Your task to perform on an android device: show emergency info Image 0: 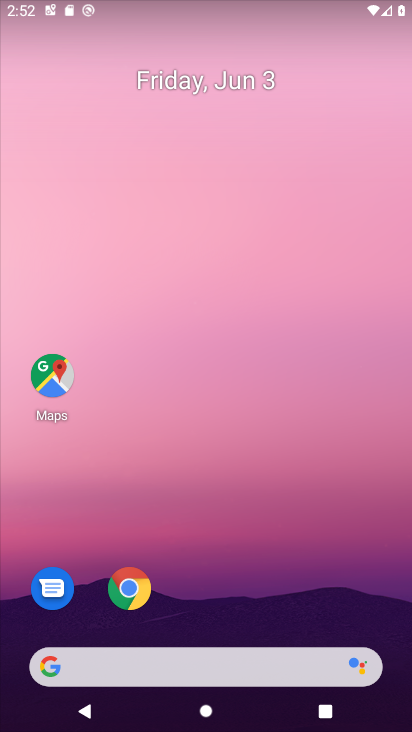
Step 0: drag from (160, 697) to (187, 126)
Your task to perform on an android device: show emergency info Image 1: 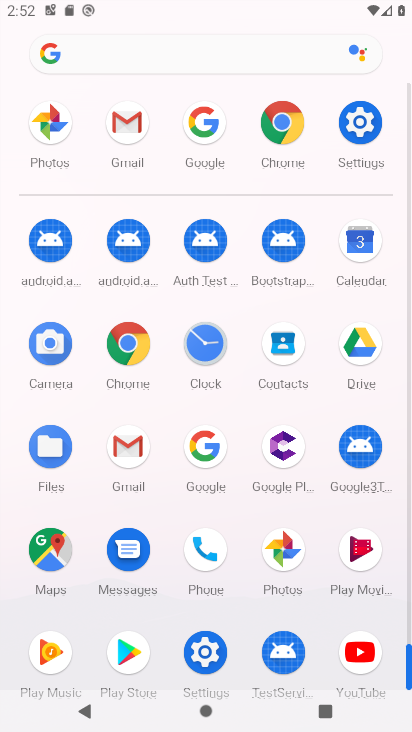
Step 1: click (373, 137)
Your task to perform on an android device: show emergency info Image 2: 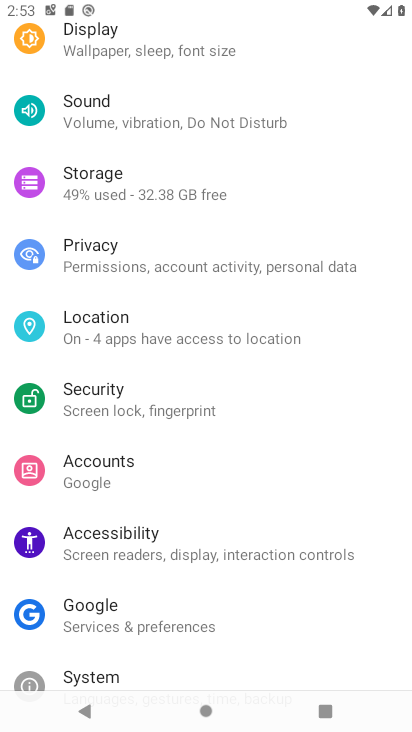
Step 2: drag from (187, 309) to (151, 506)
Your task to perform on an android device: show emergency info Image 3: 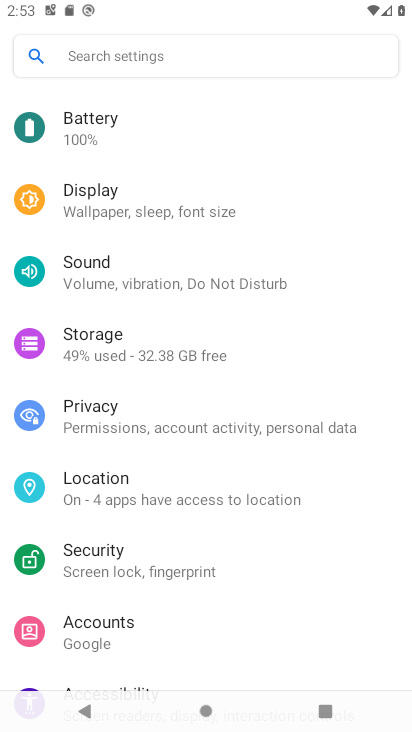
Step 3: drag from (157, 342) to (111, 558)
Your task to perform on an android device: show emergency info Image 4: 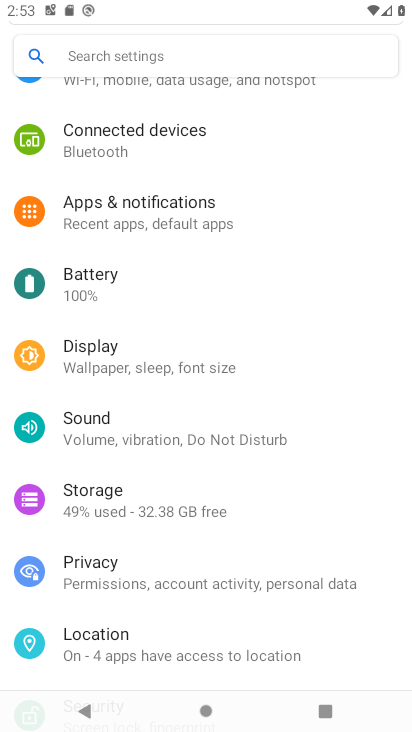
Step 4: drag from (85, 531) to (163, 98)
Your task to perform on an android device: show emergency info Image 5: 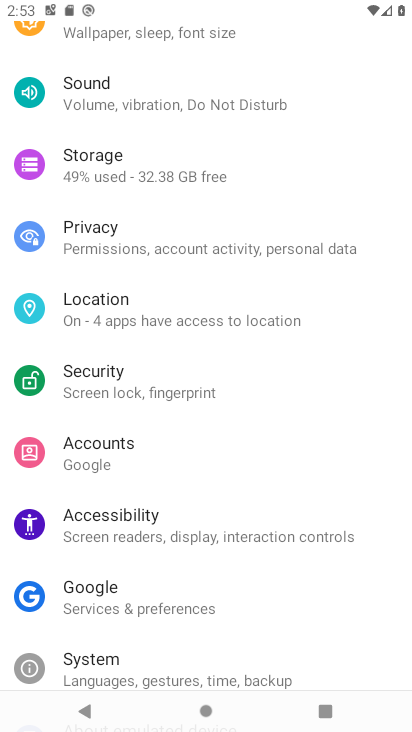
Step 5: drag from (126, 459) to (247, 55)
Your task to perform on an android device: show emergency info Image 6: 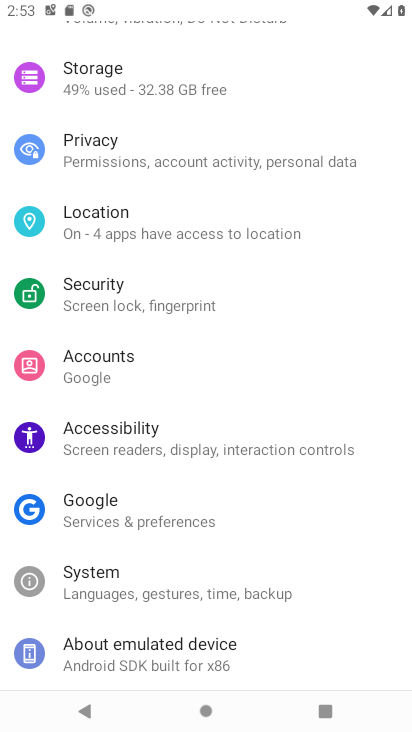
Step 6: click (98, 662)
Your task to perform on an android device: show emergency info Image 7: 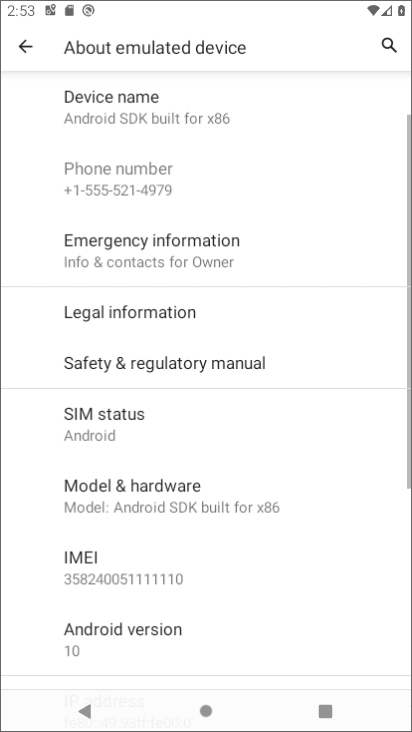
Step 7: drag from (169, 567) to (242, 312)
Your task to perform on an android device: show emergency info Image 8: 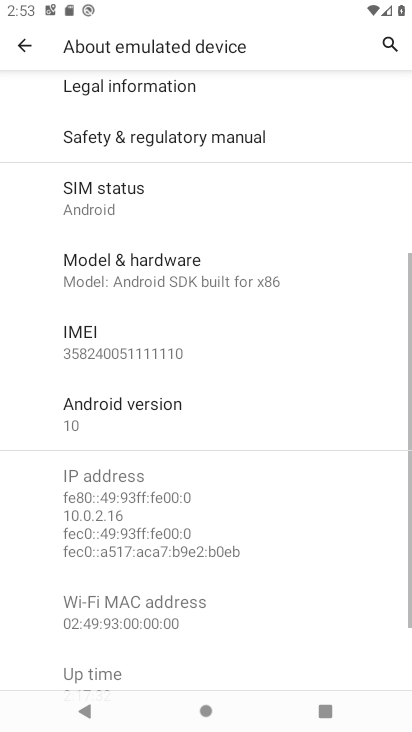
Step 8: drag from (177, 190) to (191, 660)
Your task to perform on an android device: show emergency info Image 9: 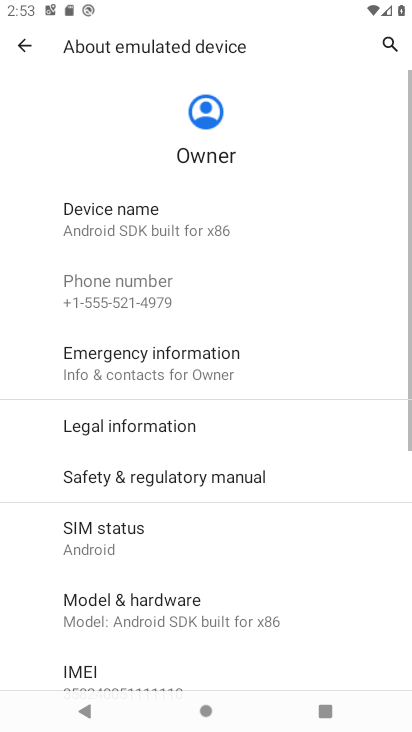
Step 9: click (244, 357)
Your task to perform on an android device: show emergency info Image 10: 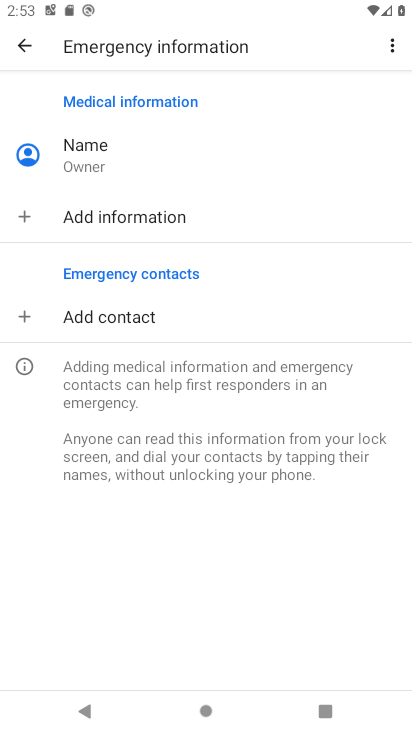
Step 10: task complete